Your task to perform on an android device: Open settings Image 0: 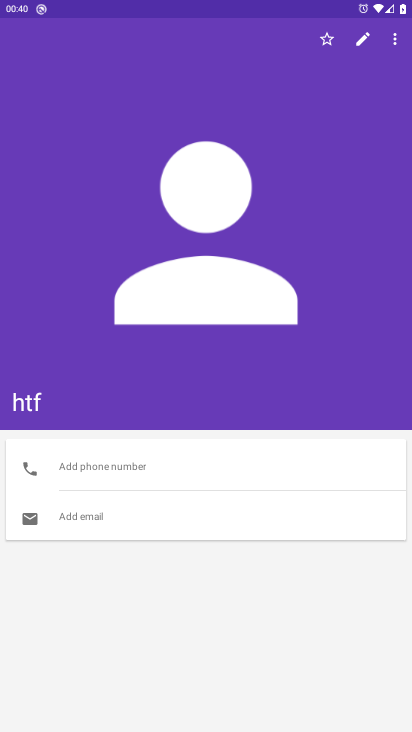
Step 0: press home button
Your task to perform on an android device: Open settings Image 1: 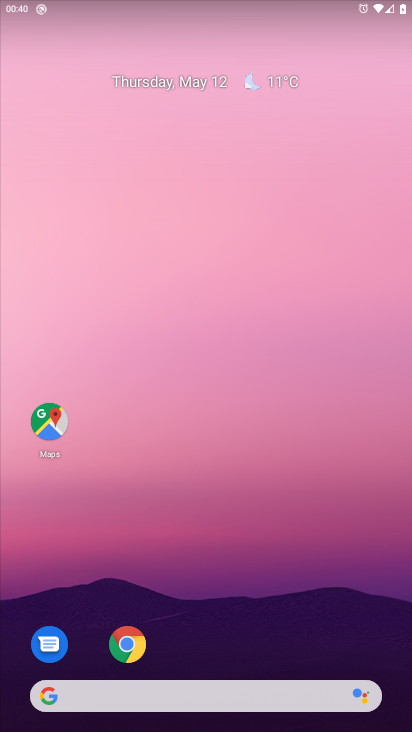
Step 1: drag from (227, 656) to (275, 101)
Your task to perform on an android device: Open settings Image 2: 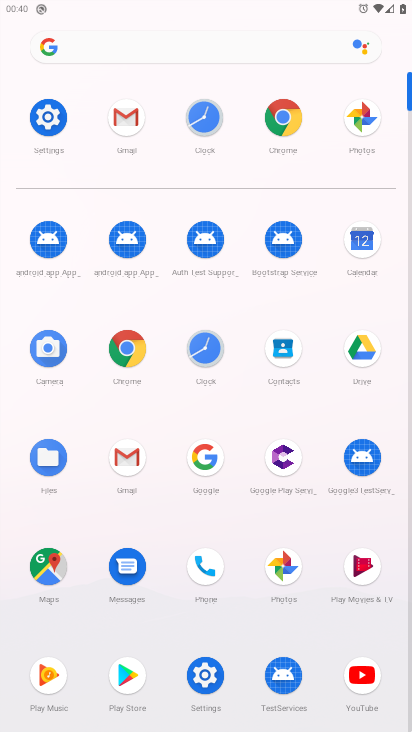
Step 2: click (48, 109)
Your task to perform on an android device: Open settings Image 3: 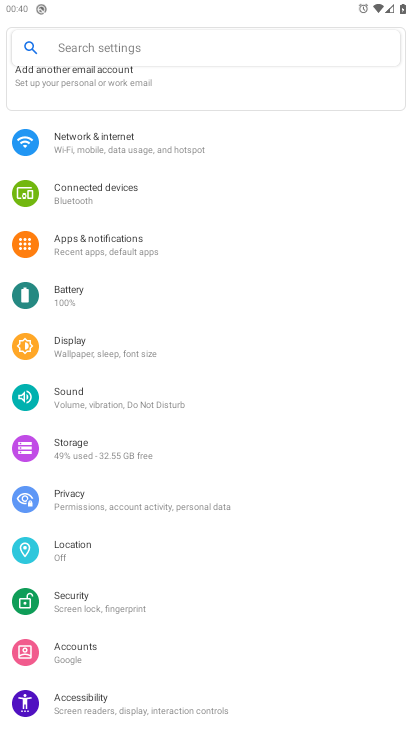
Step 3: task complete